Your task to perform on an android device: Is it going to rain today? Image 0: 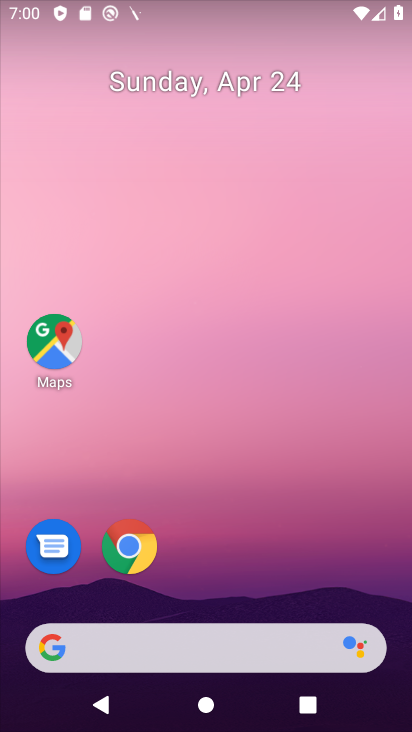
Step 0: drag from (6, 222) to (409, 303)
Your task to perform on an android device: Is it going to rain today? Image 1: 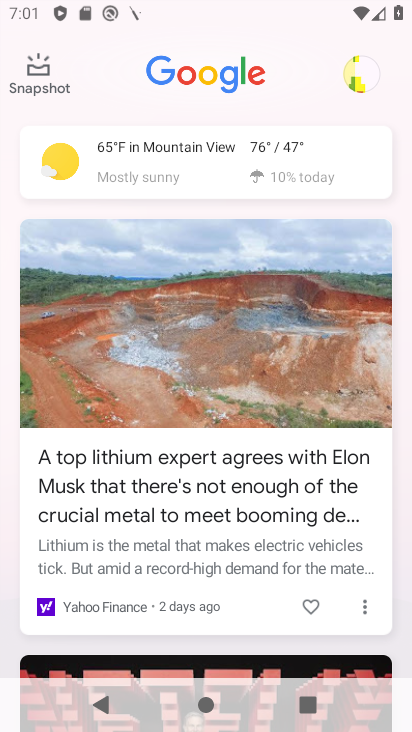
Step 1: click (257, 154)
Your task to perform on an android device: Is it going to rain today? Image 2: 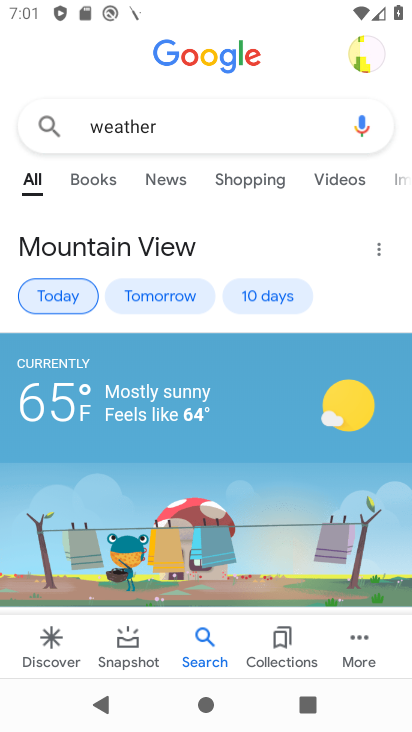
Step 2: task complete